Your task to perform on an android device: turn off javascript in the chrome app Image 0: 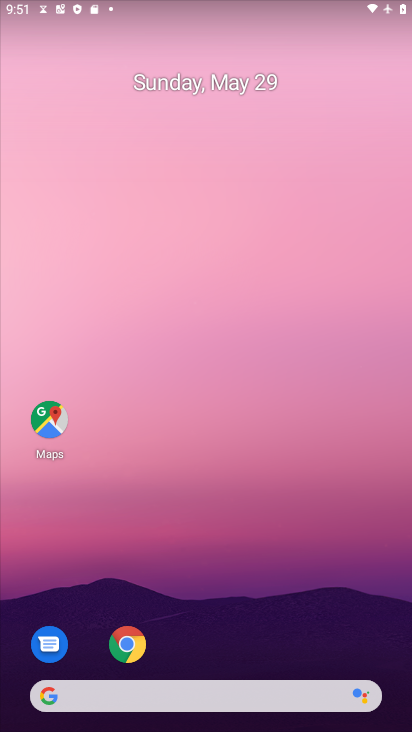
Step 0: drag from (233, 657) to (237, 252)
Your task to perform on an android device: turn off javascript in the chrome app Image 1: 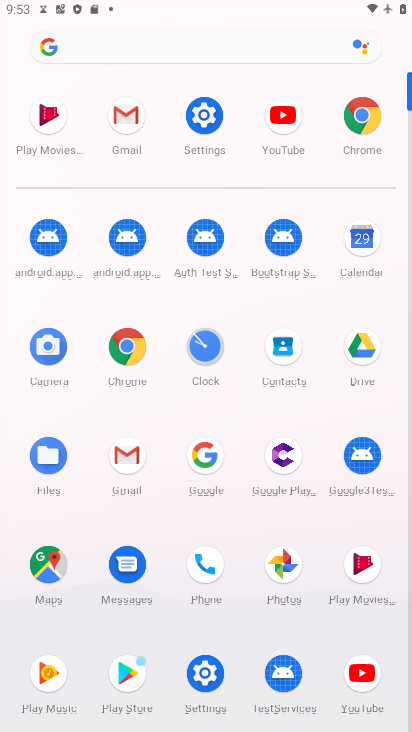
Step 1: click (356, 107)
Your task to perform on an android device: turn off javascript in the chrome app Image 2: 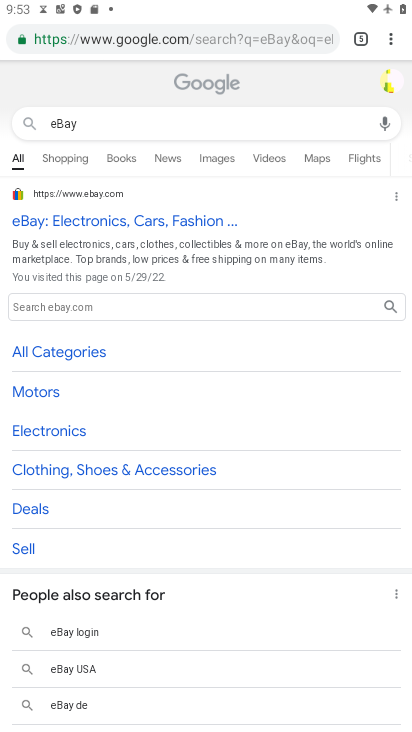
Step 2: click (388, 37)
Your task to perform on an android device: turn off javascript in the chrome app Image 3: 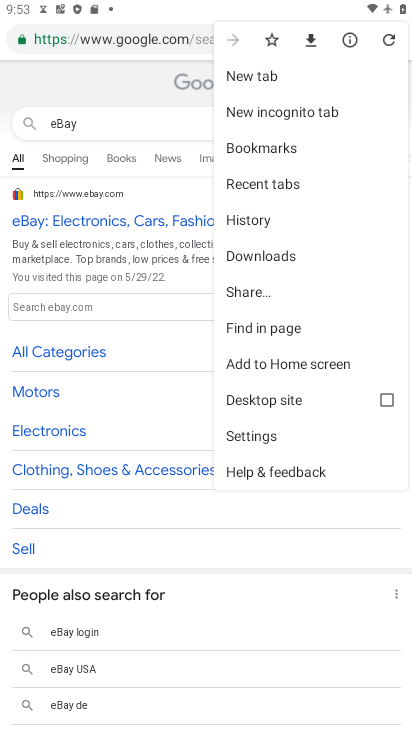
Step 3: click (275, 435)
Your task to perform on an android device: turn off javascript in the chrome app Image 4: 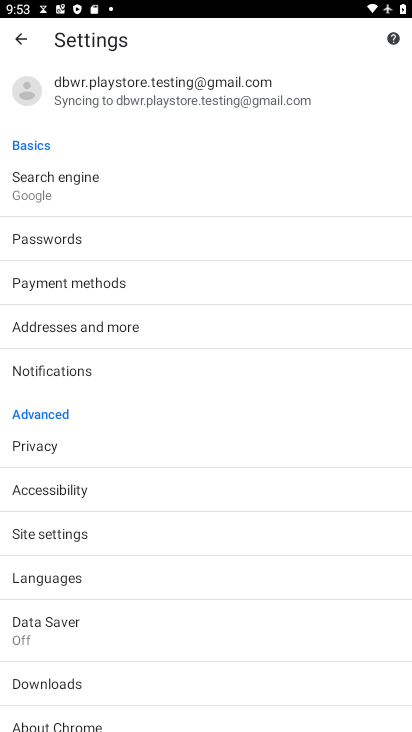
Step 4: click (99, 533)
Your task to perform on an android device: turn off javascript in the chrome app Image 5: 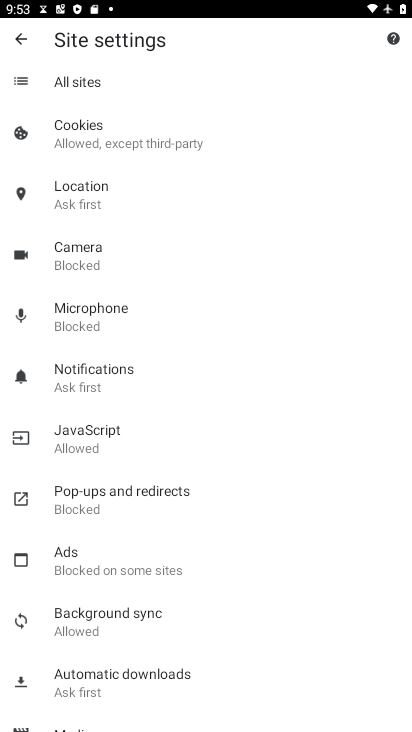
Step 5: click (129, 437)
Your task to perform on an android device: turn off javascript in the chrome app Image 6: 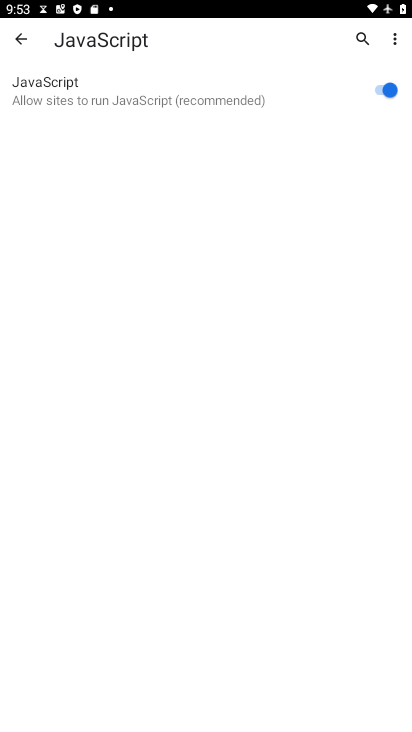
Step 6: click (389, 92)
Your task to perform on an android device: turn off javascript in the chrome app Image 7: 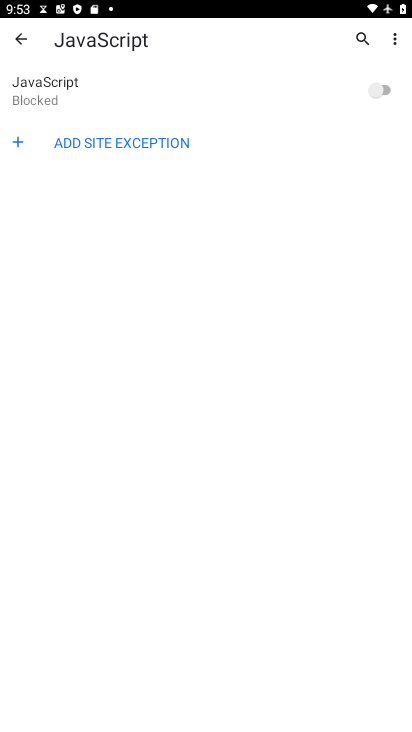
Step 7: task complete